Your task to perform on an android device: Go to Wikipedia Image 0: 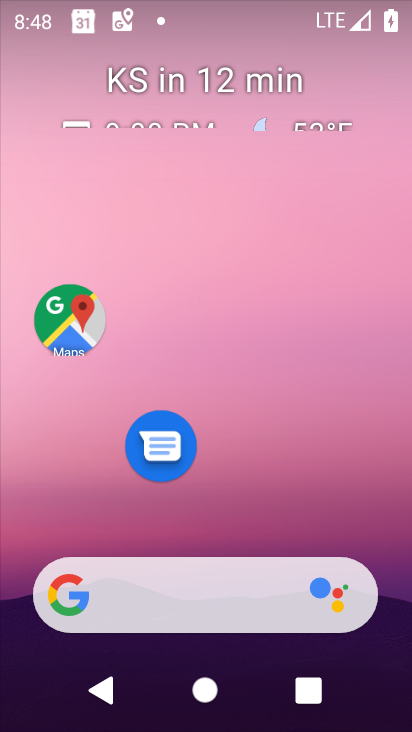
Step 0: drag from (221, 532) to (186, 2)
Your task to perform on an android device: Go to Wikipedia Image 1: 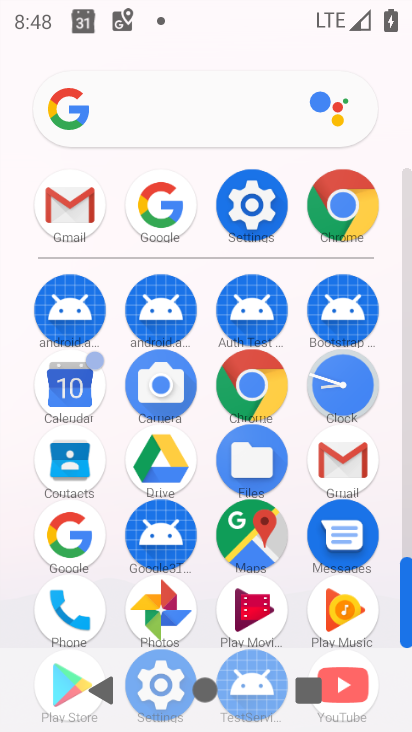
Step 1: click (261, 390)
Your task to perform on an android device: Go to Wikipedia Image 2: 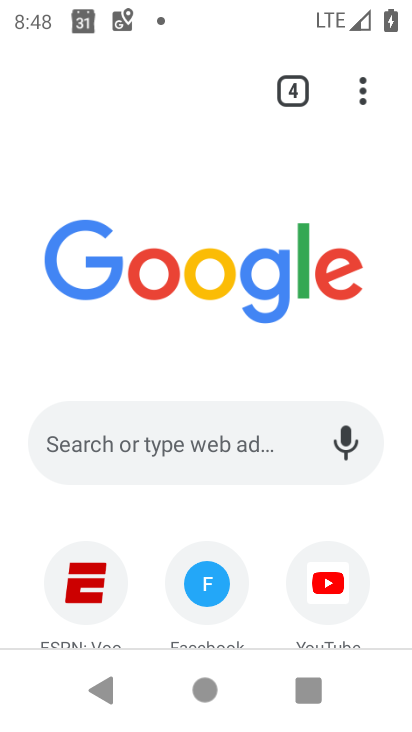
Step 2: drag from (269, 584) to (235, 318)
Your task to perform on an android device: Go to Wikipedia Image 3: 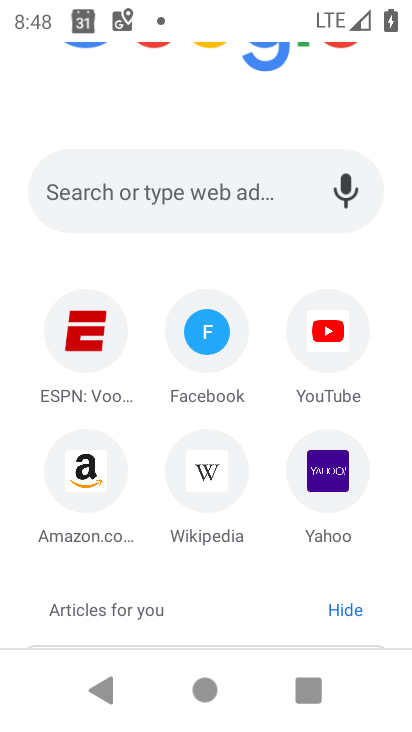
Step 3: click (213, 478)
Your task to perform on an android device: Go to Wikipedia Image 4: 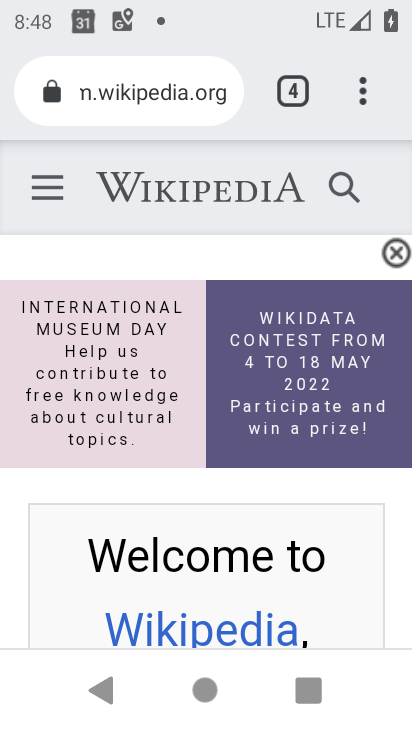
Step 4: task complete